Your task to perform on an android device: Open Google Image 0: 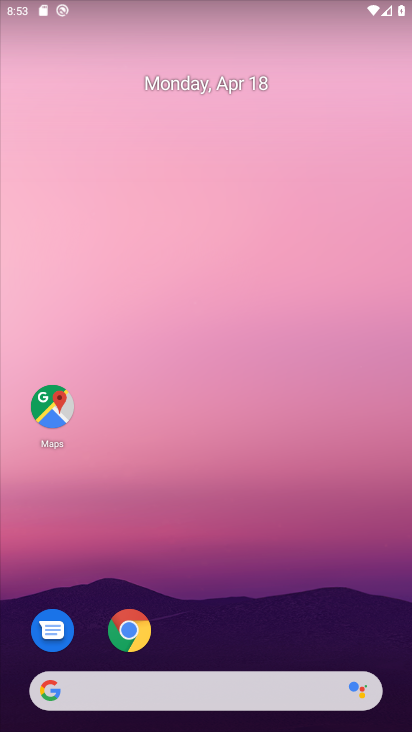
Step 0: drag from (242, 592) to (252, 46)
Your task to perform on an android device: Open Google Image 1: 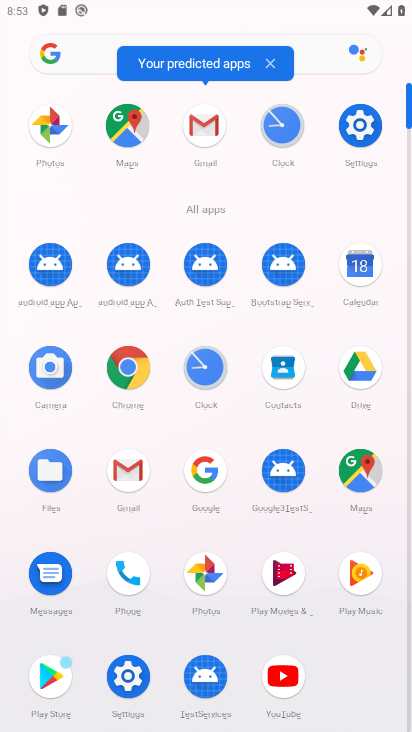
Step 1: click (207, 469)
Your task to perform on an android device: Open Google Image 2: 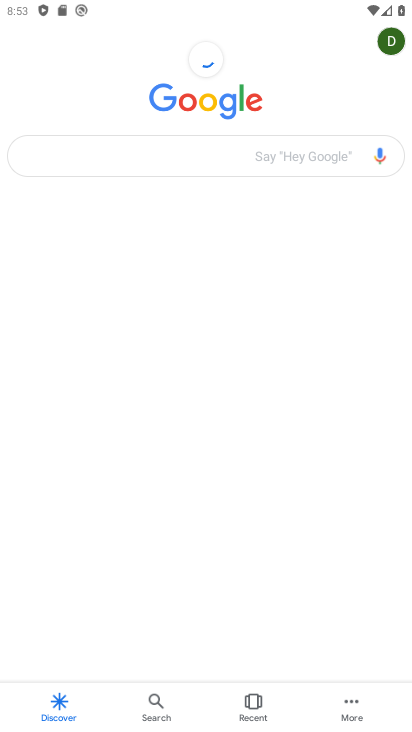
Step 2: task complete